Your task to perform on an android device: Show me recent news Image 0: 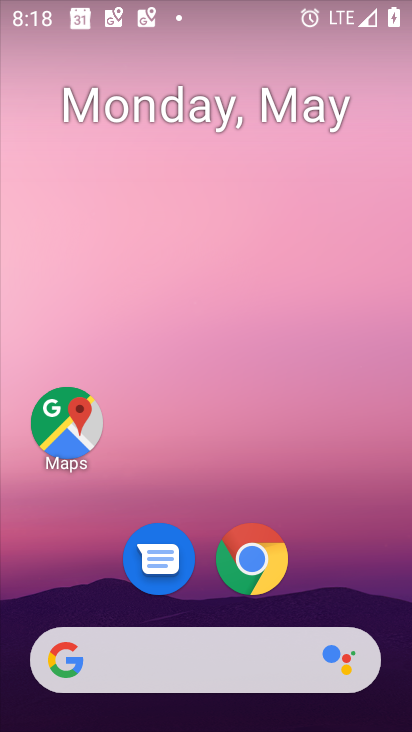
Step 0: drag from (392, 620) to (244, 88)
Your task to perform on an android device: Show me recent news Image 1: 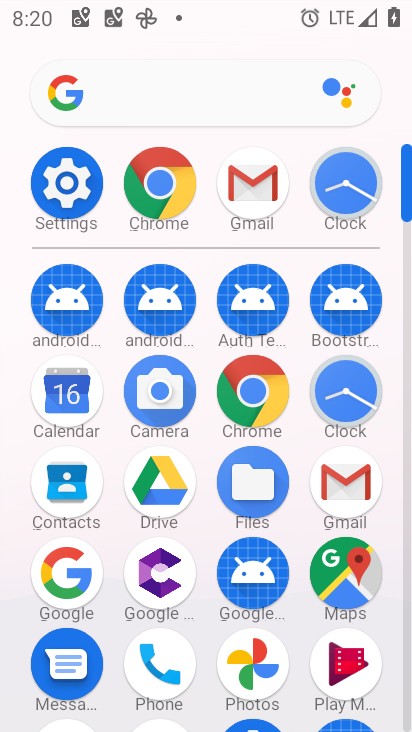
Step 1: click (263, 377)
Your task to perform on an android device: Show me recent news Image 2: 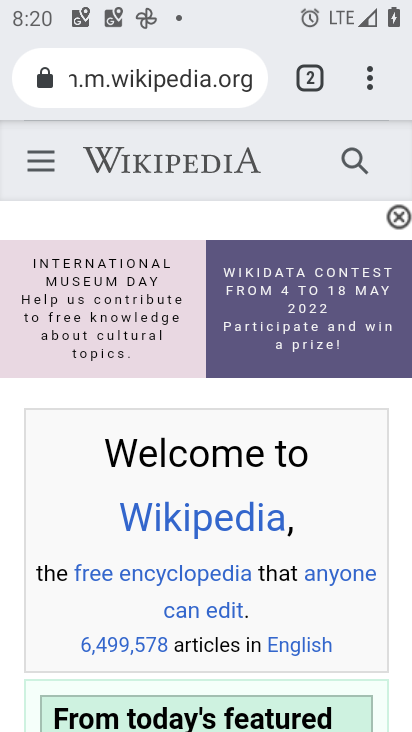
Step 2: press back button
Your task to perform on an android device: Show me recent news Image 3: 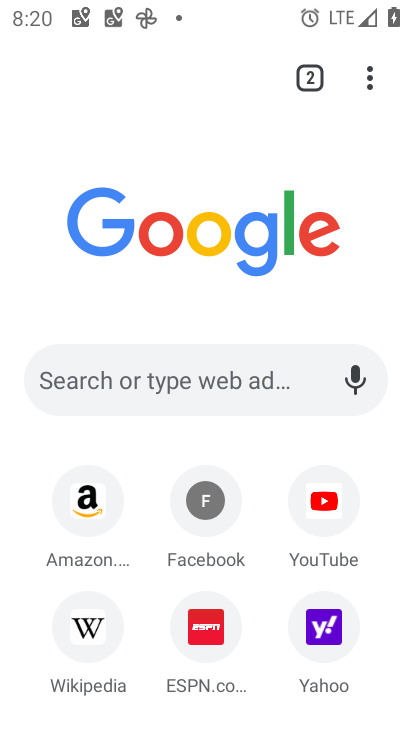
Step 3: drag from (164, 615) to (175, 40)
Your task to perform on an android device: Show me recent news Image 4: 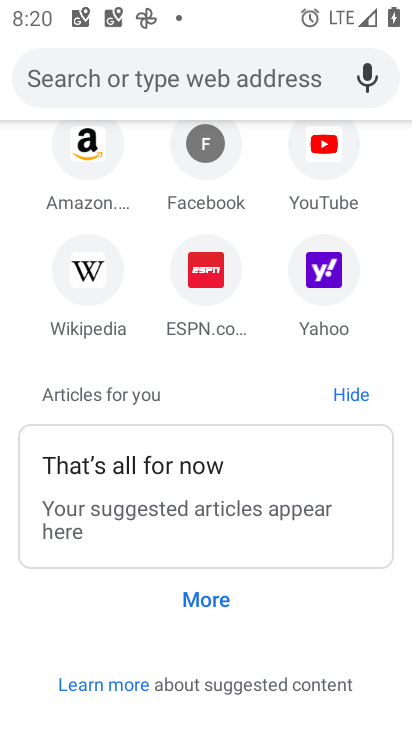
Step 4: click (214, 604)
Your task to perform on an android device: Show me recent news Image 5: 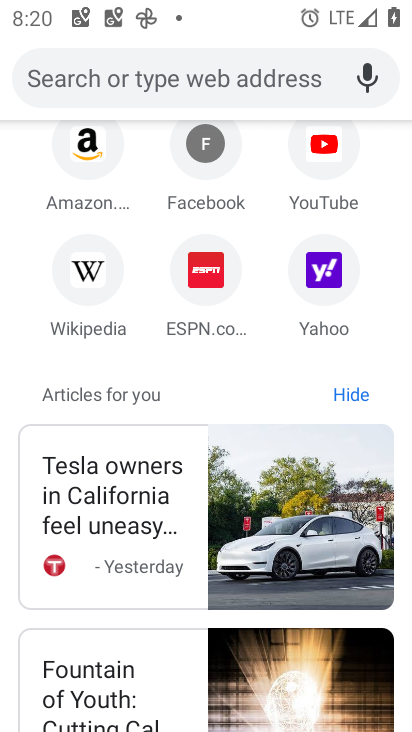
Step 5: click (92, 548)
Your task to perform on an android device: Show me recent news Image 6: 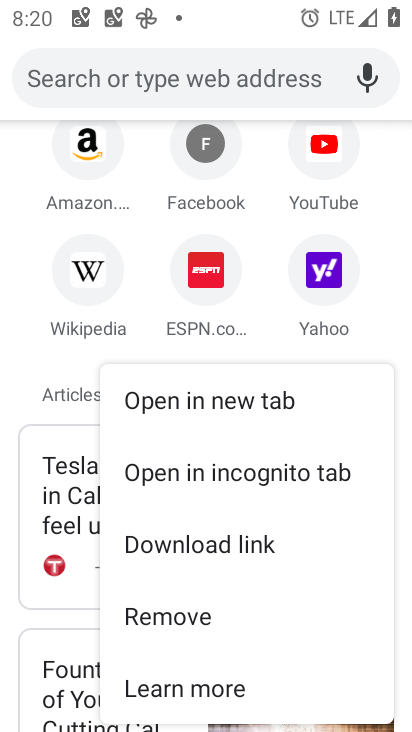
Step 6: click (82, 499)
Your task to perform on an android device: Show me recent news Image 7: 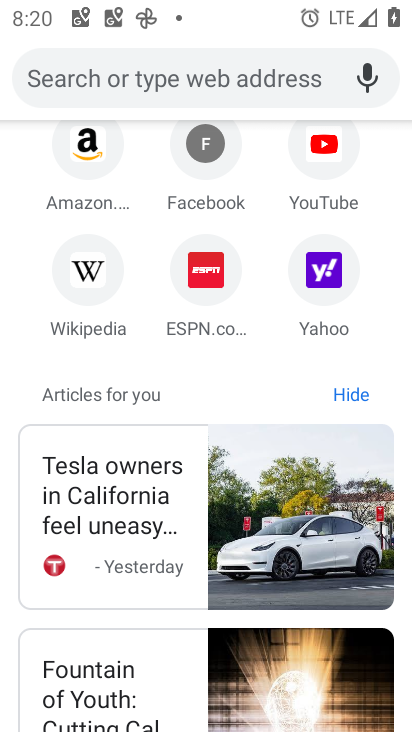
Step 7: click (82, 499)
Your task to perform on an android device: Show me recent news Image 8: 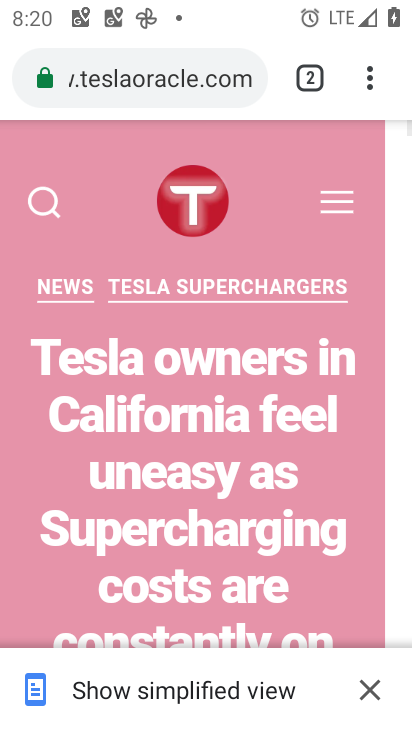
Step 8: task complete